Your task to perform on an android device: turn on wifi Image 0: 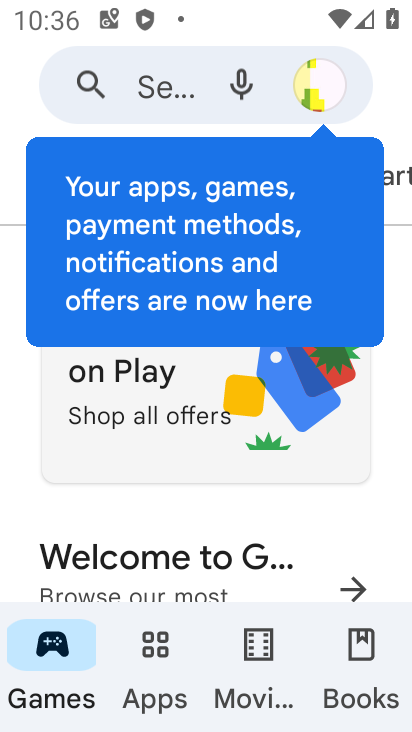
Step 0: press home button
Your task to perform on an android device: turn on wifi Image 1: 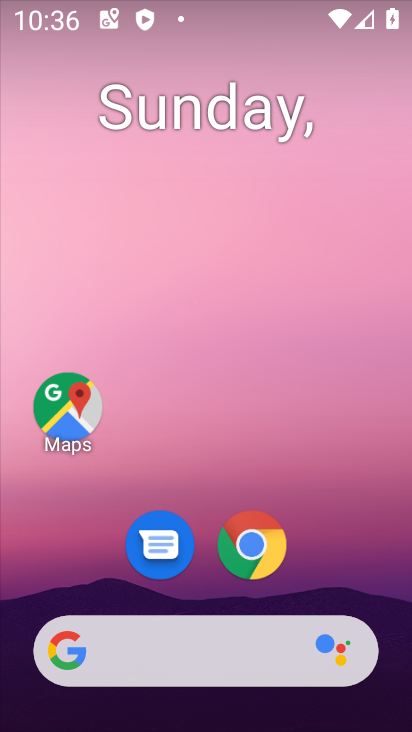
Step 1: drag from (66, 599) to (231, 117)
Your task to perform on an android device: turn on wifi Image 2: 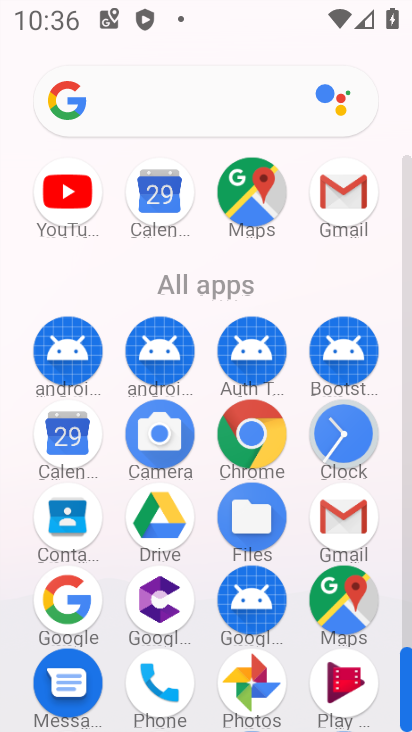
Step 2: drag from (186, 593) to (272, 394)
Your task to perform on an android device: turn on wifi Image 3: 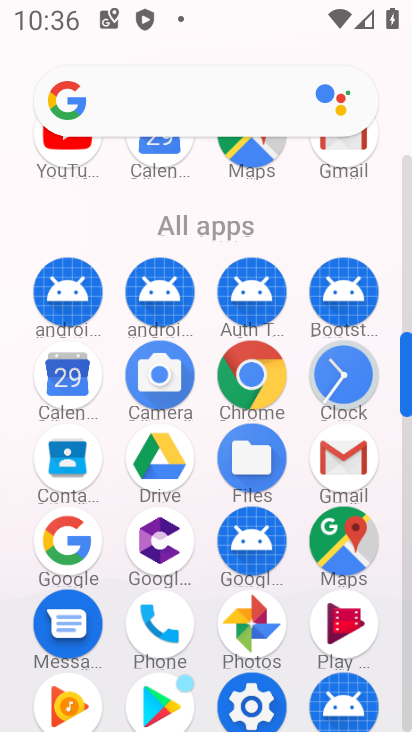
Step 3: click (257, 707)
Your task to perform on an android device: turn on wifi Image 4: 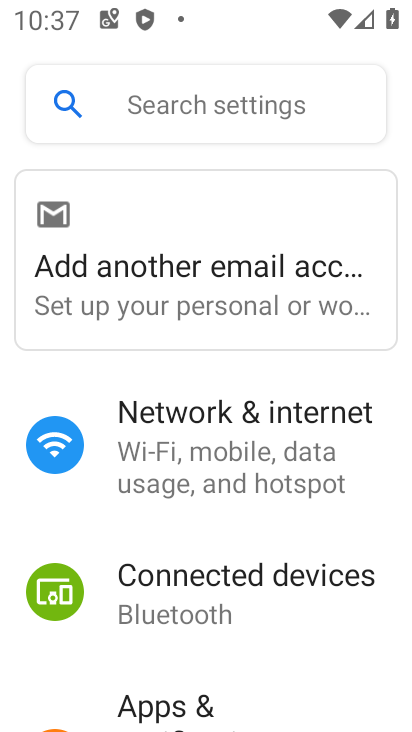
Step 4: click (317, 470)
Your task to perform on an android device: turn on wifi Image 5: 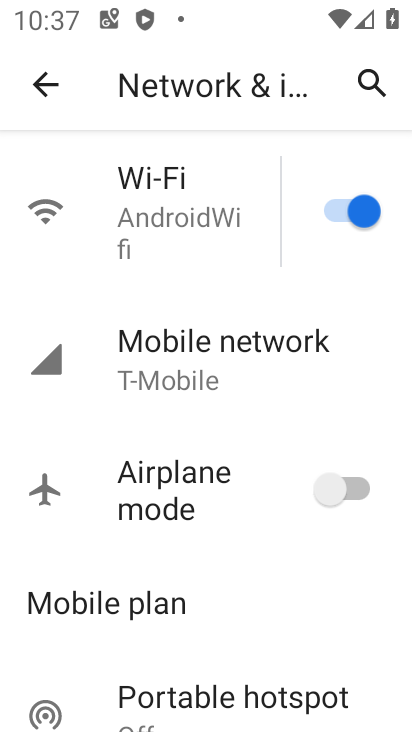
Step 5: click (139, 249)
Your task to perform on an android device: turn on wifi Image 6: 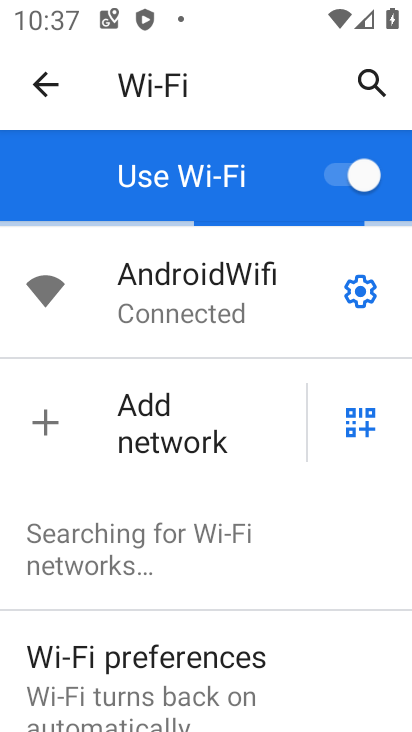
Step 6: task complete